Your task to perform on an android device: turn off picture-in-picture Image 0: 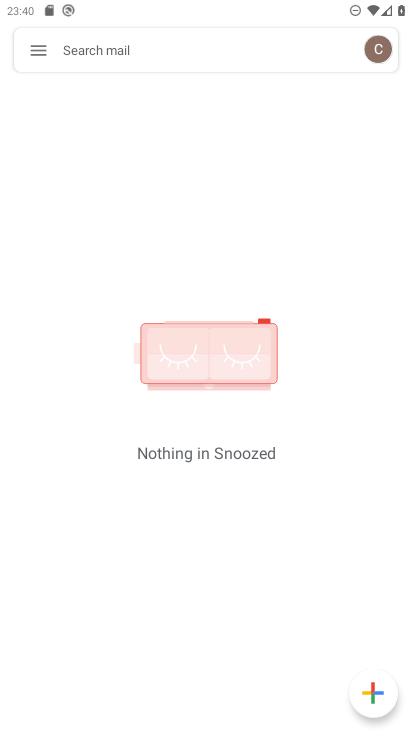
Step 0: press home button
Your task to perform on an android device: turn off picture-in-picture Image 1: 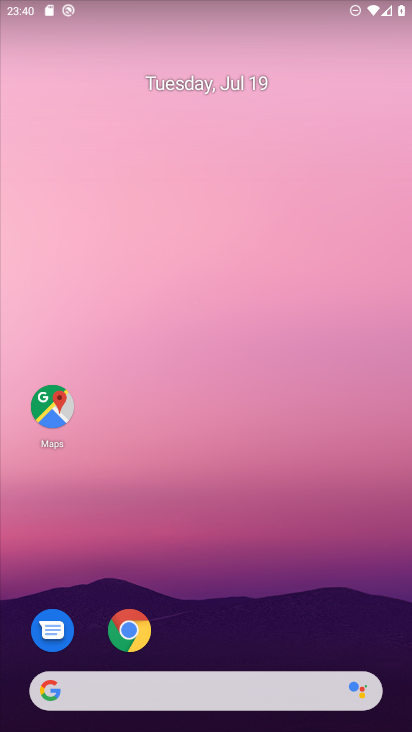
Step 1: click (141, 644)
Your task to perform on an android device: turn off picture-in-picture Image 2: 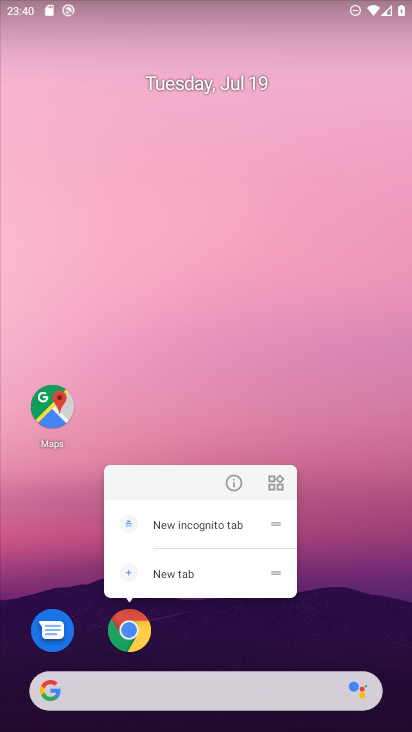
Step 2: click (230, 488)
Your task to perform on an android device: turn off picture-in-picture Image 3: 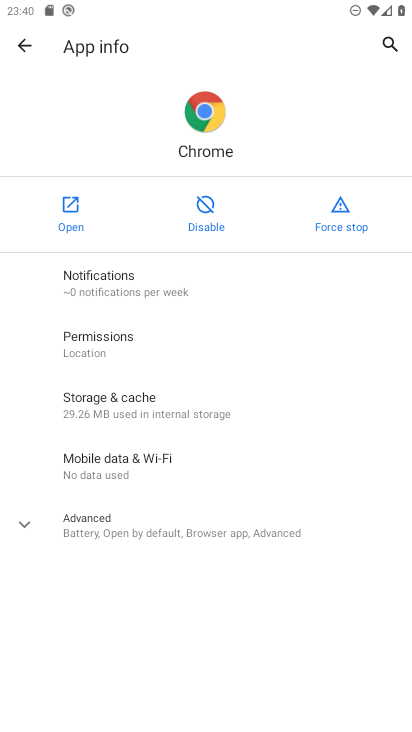
Step 3: click (175, 508)
Your task to perform on an android device: turn off picture-in-picture Image 4: 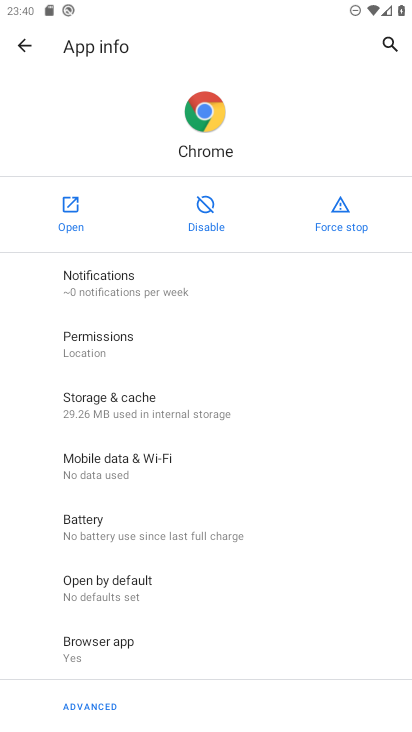
Step 4: drag from (180, 614) to (184, 341)
Your task to perform on an android device: turn off picture-in-picture Image 5: 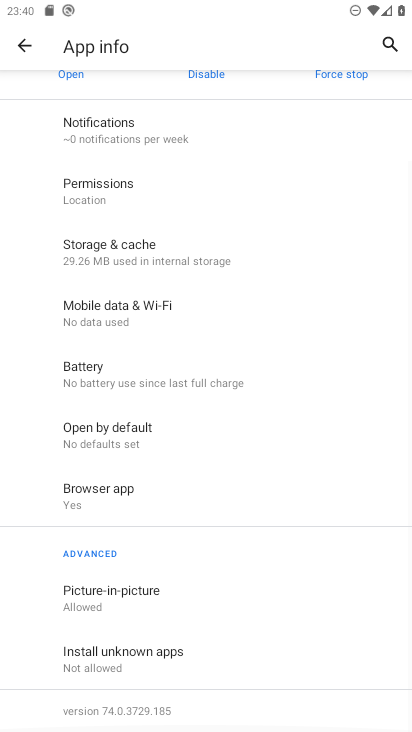
Step 5: click (156, 585)
Your task to perform on an android device: turn off picture-in-picture Image 6: 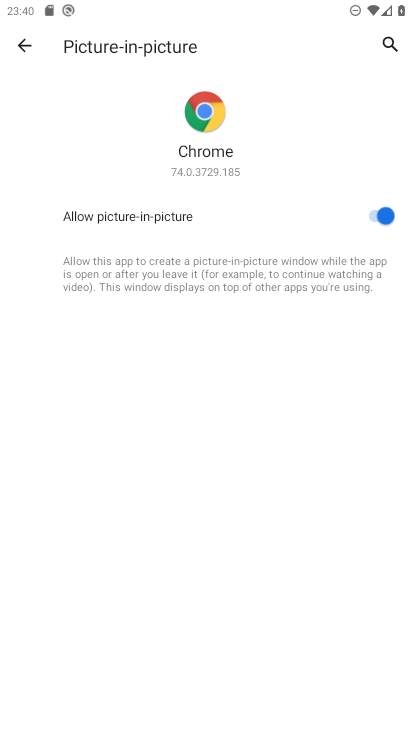
Step 6: click (367, 214)
Your task to perform on an android device: turn off picture-in-picture Image 7: 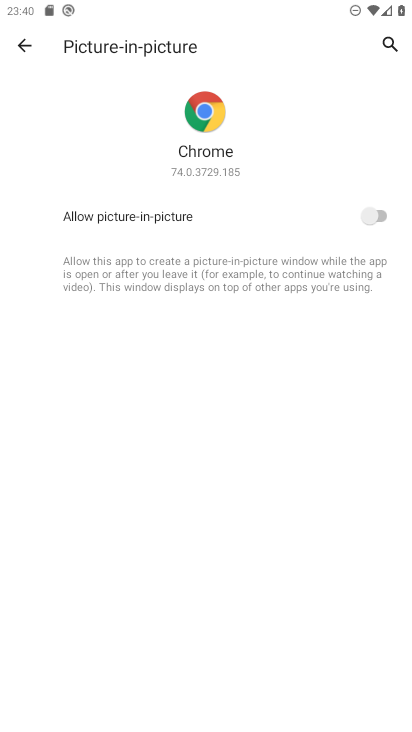
Step 7: task complete